Your task to perform on an android device: turn on javascript in the chrome app Image 0: 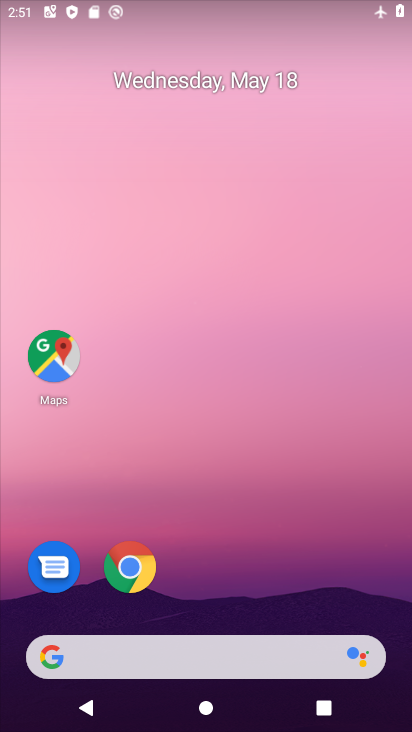
Step 0: click (131, 569)
Your task to perform on an android device: turn on javascript in the chrome app Image 1: 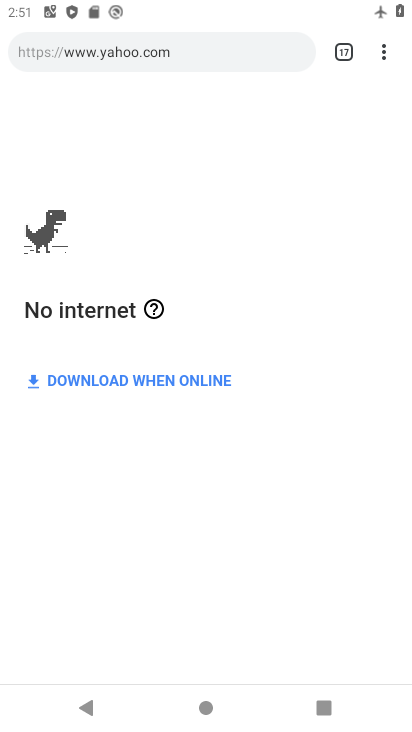
Step 1: click (375, 55)
Your task to perform on an android device: turn on javascript in the chrome app Image 2: 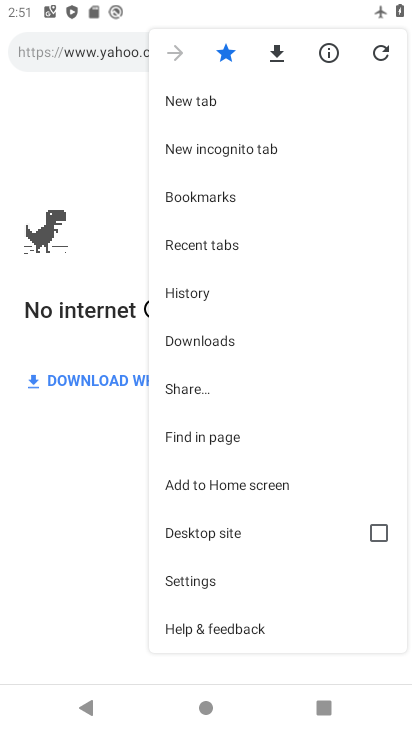
Step 2: click (224, 573)
Your task to perform on an android device: turn on javascript in the chrome app Image 3: 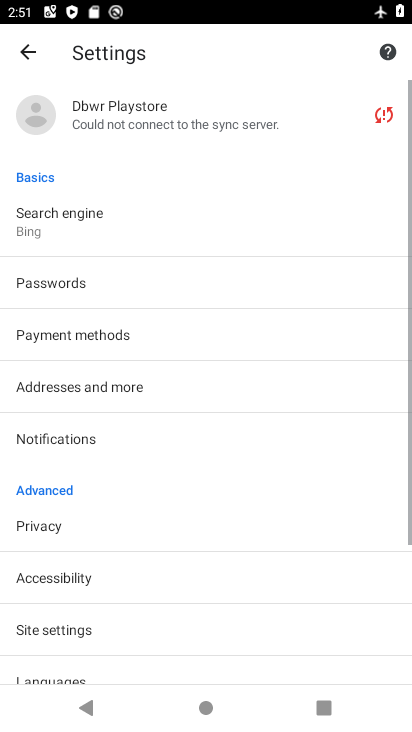
Step 3: drag from (182, 593) to (201, 304)
Your task to perform on an android device: turn on javascript in the chrome app Image 4: 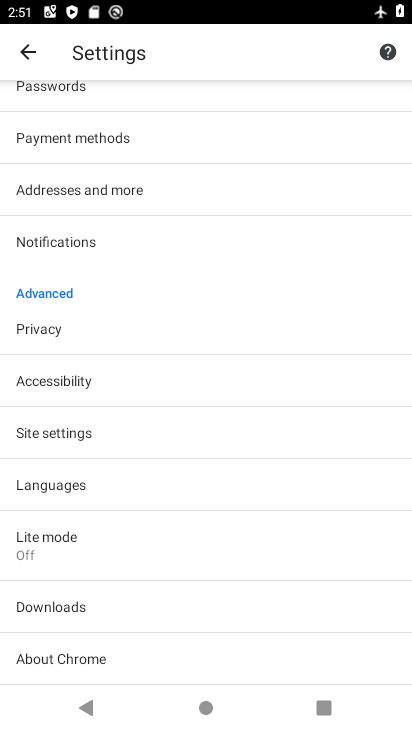
Step 4: click (94, 420)
Your task to perform on an android device: turn on javascript in the chrome app Image 5: 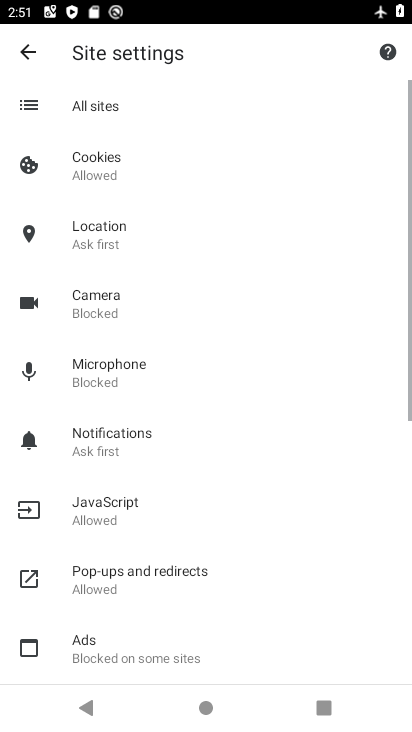
Step 5: click (150, 505)
Your task to perform on an android device: turn on javascript in the chrome app Image 6: 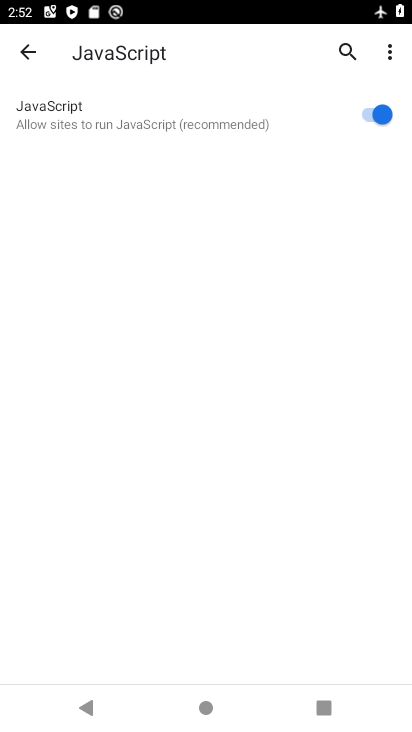
Step 6: task complete